Your task to perform on an android device: make emails show in primary in the gmail app Image 0: 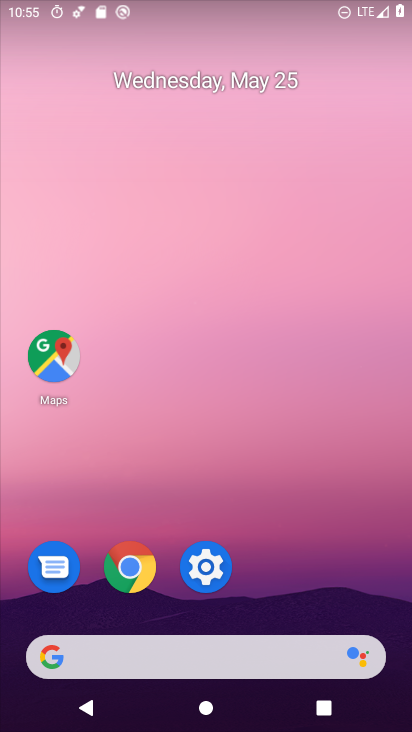
Step 0: drag from (269, 688) to (208, 42)
Your task to perform on an android device: make emails show in primary in the gmail app Image 1: 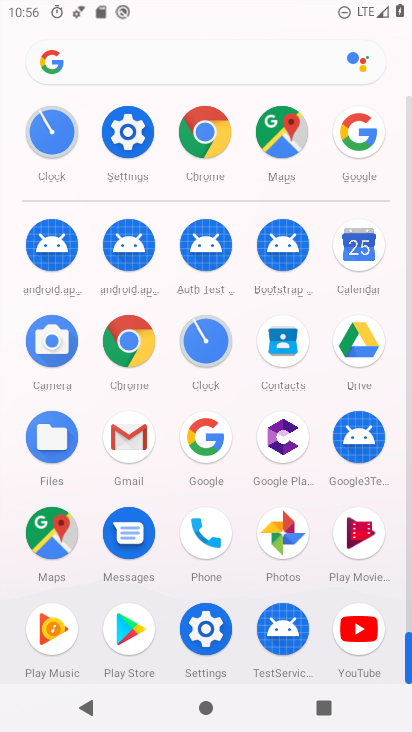
Step 1: click (122, 431)
Your task to perform on an android device: make emails show in primary in the gmail app Image 2: 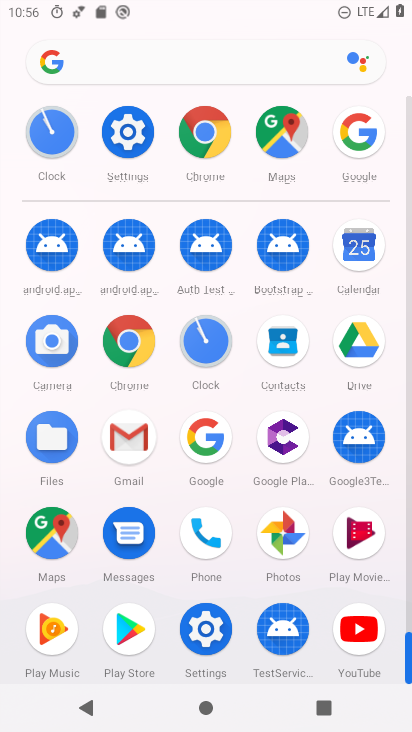
Step 2: click (122, 431)
Your task to perform on an android device: make emails show in primary in the gmail app Image 3: 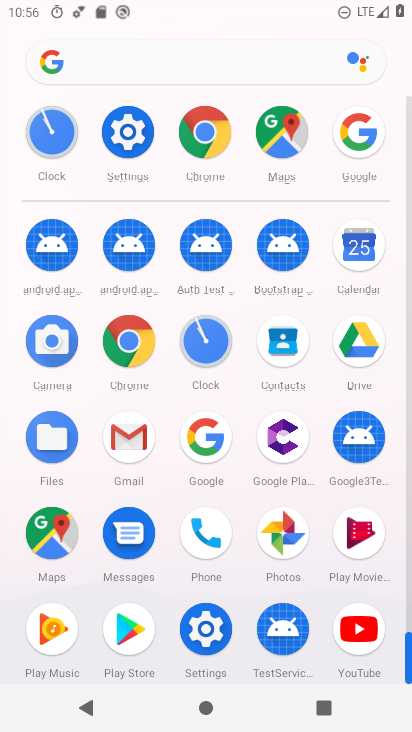
Step 3: click (122, 431)
Your task to perform on an android device: make emails show in primary in the gmail app Image 4: 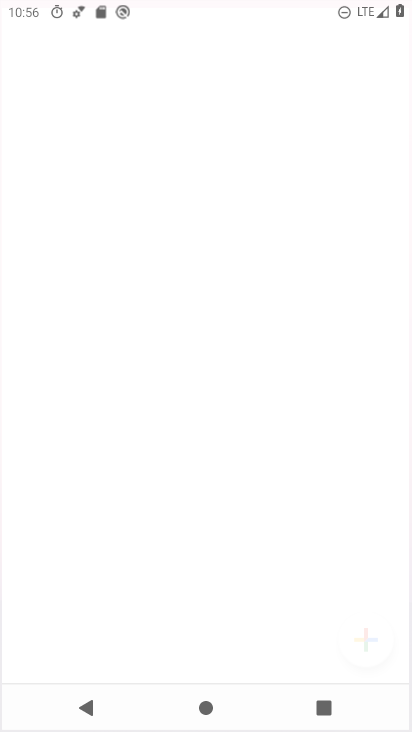
Step 4: click (122, 431)
Your task to perform on an android device: make emails show in primary in the gmail app Image 5: 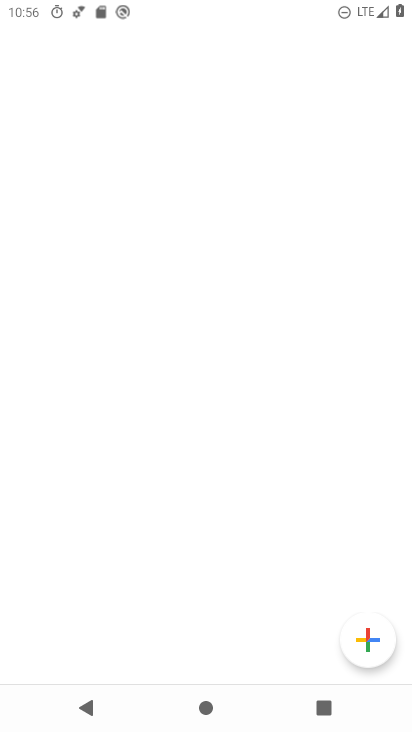
Step 5: click (122, 431)
Your task to perform on an android device: make emails show in primary in the gmail app Image 6: 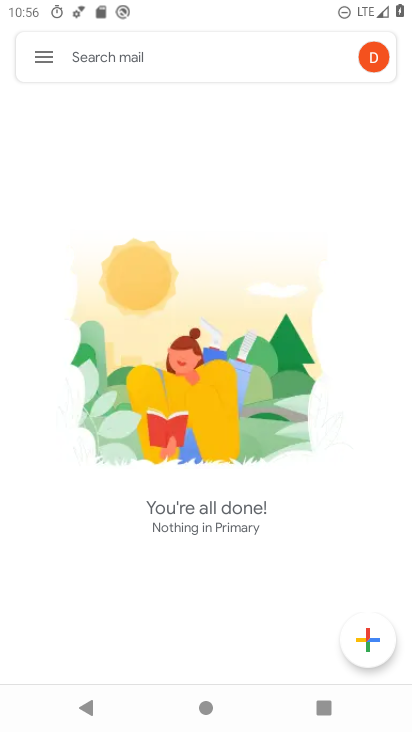
Step 6: press back button
Your task to perform on an android device: make emails show in primary in the gmail app Image 7: 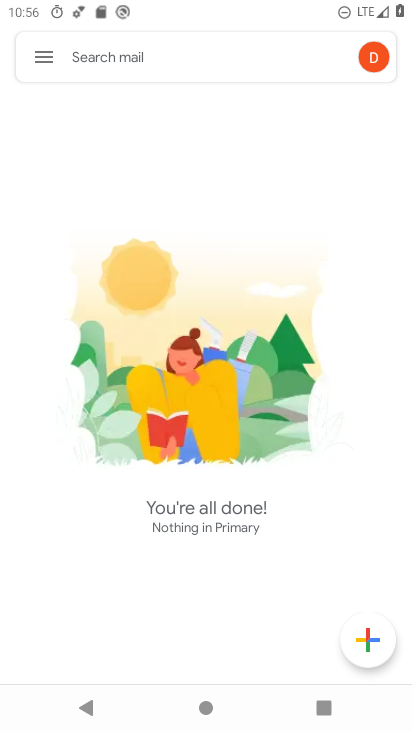
Step 7: press back button
Your task to perform on an android device: make emails show in primary in the gmail app Image 8: 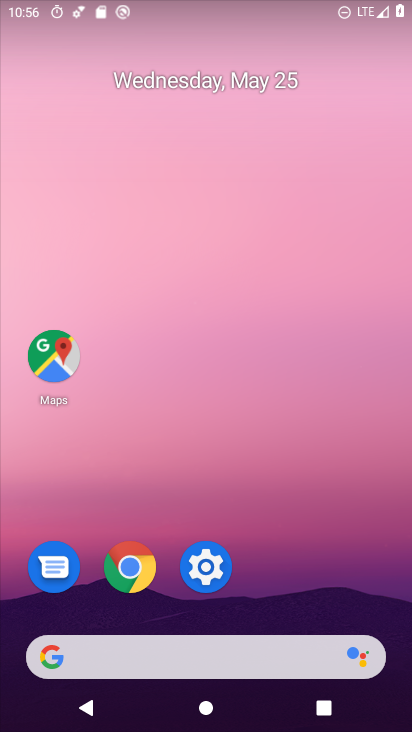
Step 8: drag from (269, 675) to (159, 66)
Your task to perform on an android device: make emails show in primary in the gmail app Image 9: 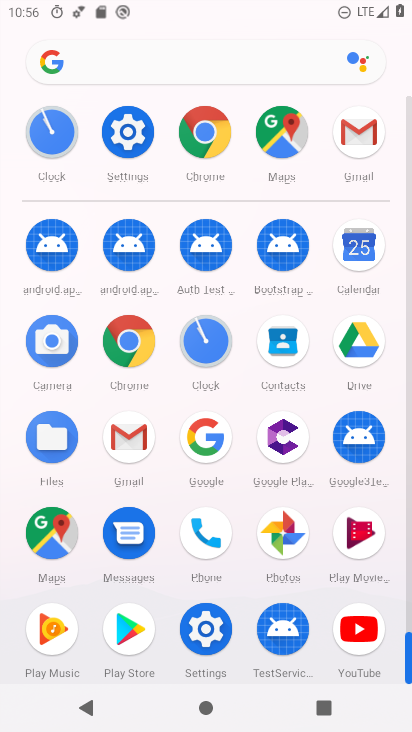
Step 9: click (124, 438)
Your task to perform on an android device: make emails show in primary in the gmail app Image 10: 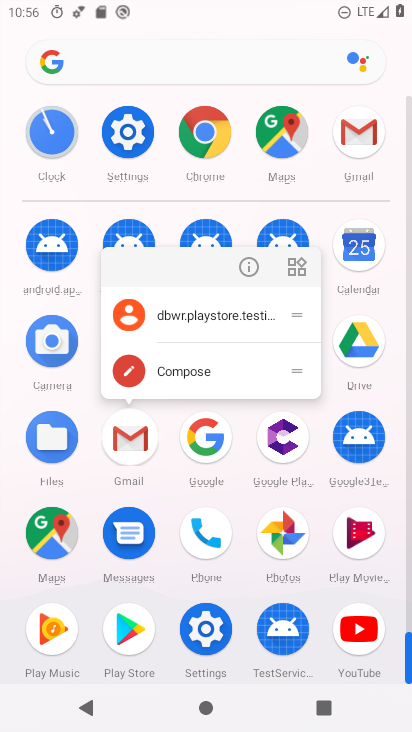
Step 10: click (124, 437)
Your task to perform on an android device: make emails show in primary in the gmail app Image 11: 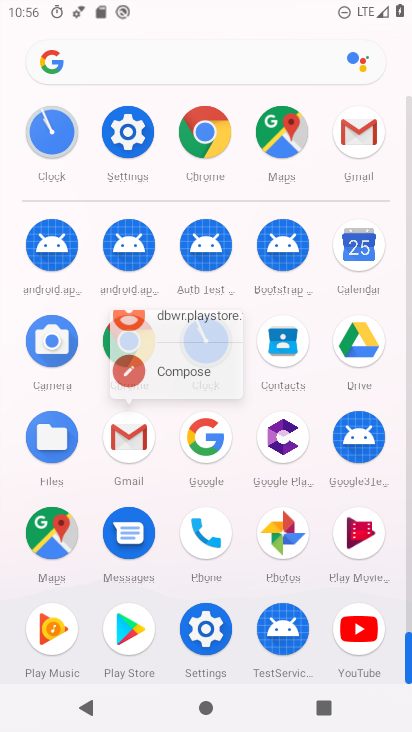
Step 11: click (124, 437)
Your task to perform on an android device: make emails show in primary in the gmail app Image 12: 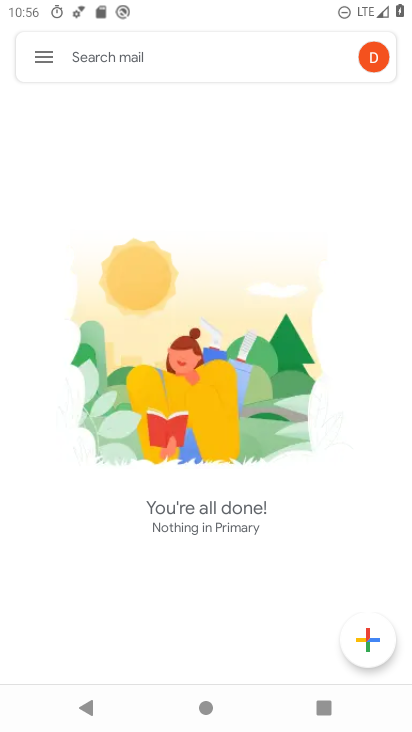
Step 12: click (46, 52)
Your task to perform on an android device: make emails show in primary in the gmail app Image 13: 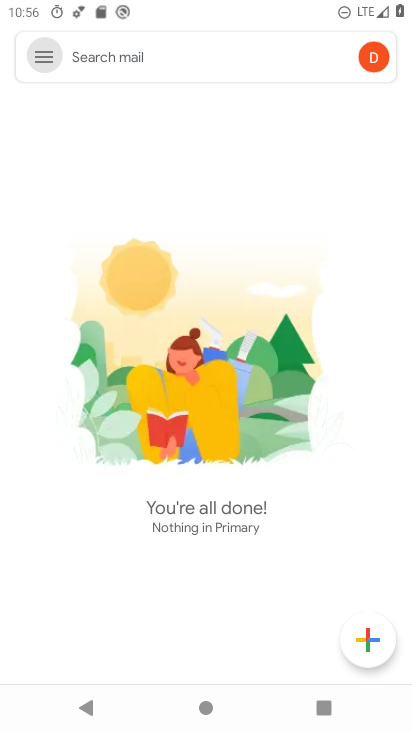
Step 13: click (46, 52)
Your task to perform on an android device: make emails show in primary in the gmail app Image 14: 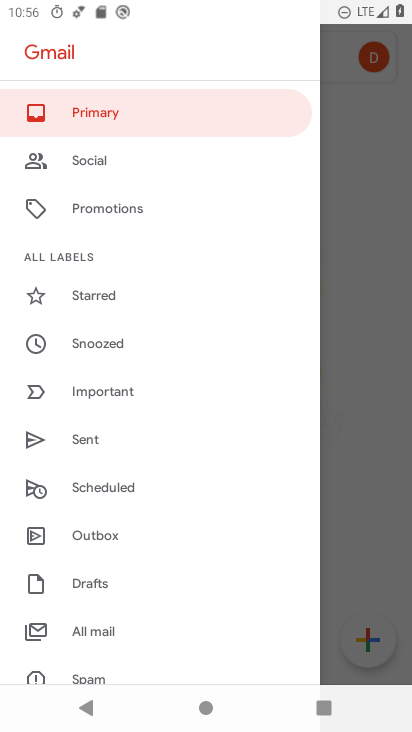
Step 14: drag from (102, 518) to (89, 180)
Your task to perform on an android device: make emails show in primary in the gmail app Image 15: 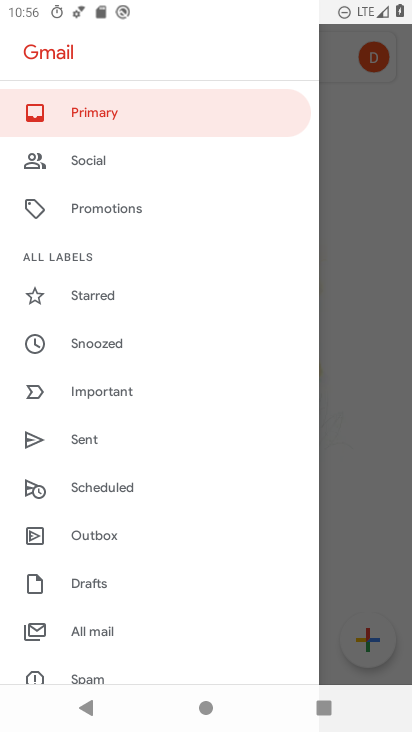
Step 15: drag from (82, 541) to (63, 244)
Your task to perform on an android device: make emails show in primary in the gmail app Image 16: 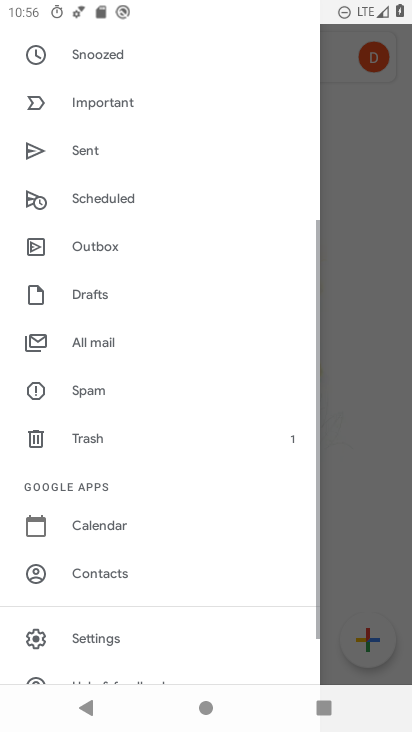
Step 16: drag from (59, 633) to (95, 394)
Your task to perform on an android device: make emails show in primary in the gmail app Image 17: 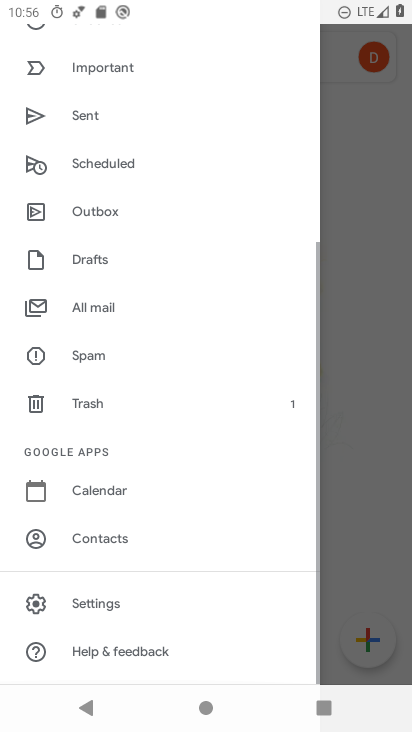
Step 17: drag from (51, 502) to (32, 421)
Your task to perform on an android device: make emails show in primary in the gmail app Image 18: 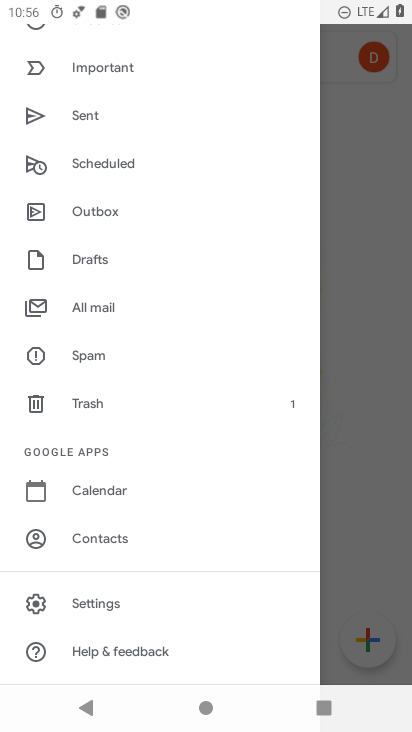
Step 18: click (80, 604)
Your task to perform on an android device: make emails show in primary in the gmail app Image 19: 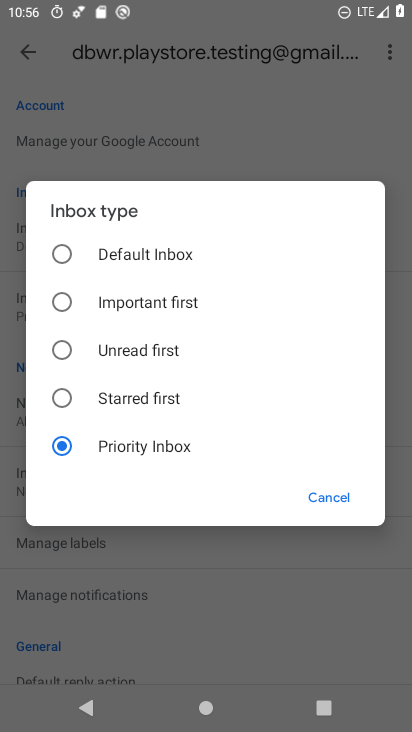
Step 19: click (328, 492)
Your task to perform on an android device: make emails show in primary in the gmail app Image 20: 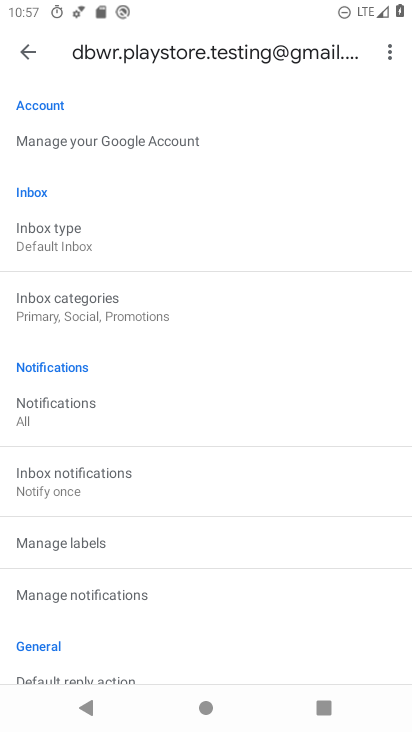
Step 20: click (63, 307)
Your task to perform on an android device: make emails show in primary in the gmail app Image 21: 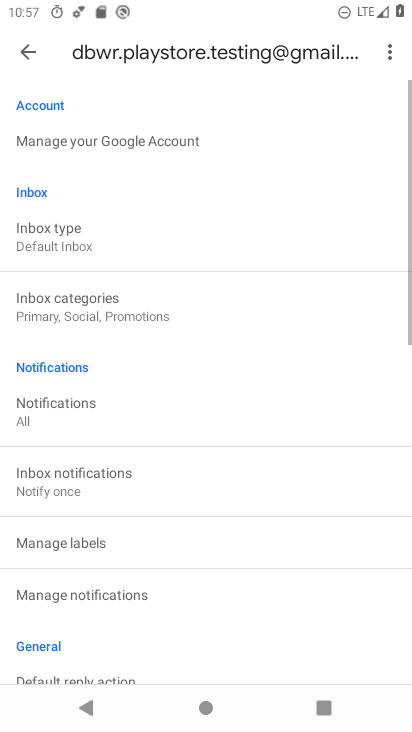
Step 21: click (63, 307)
Your task to perform on an android device: make emails show in primary in the gmail app Image 22: 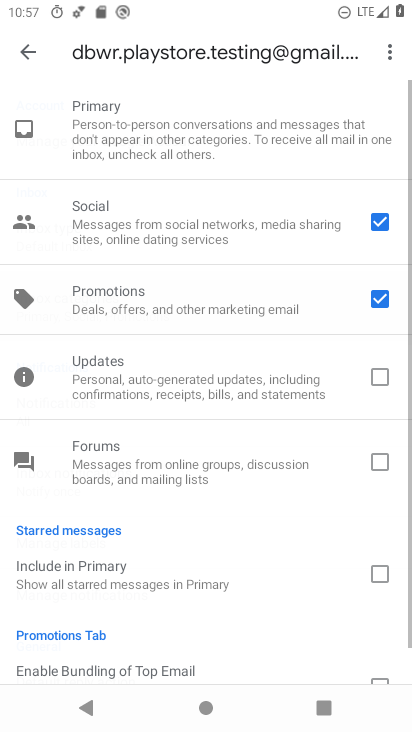
Step 22: click (63, 307)
Your task to perform on an android device: make emails show in primary in the gmail app Image 23: 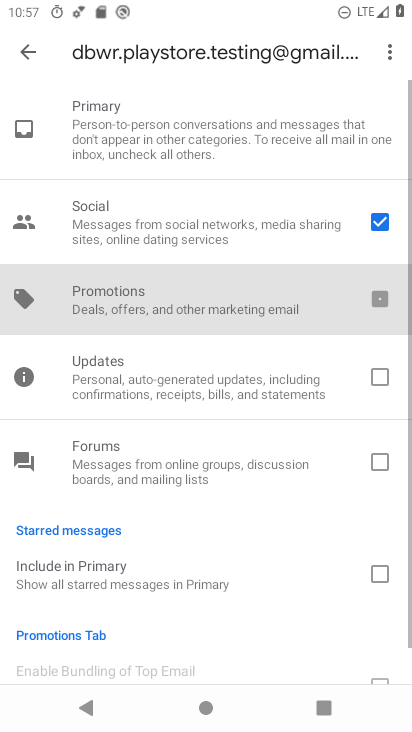
Step 23: click (63, 307)
Your task to perform on an android device: make emails show in primary in the gmail app Image 24: 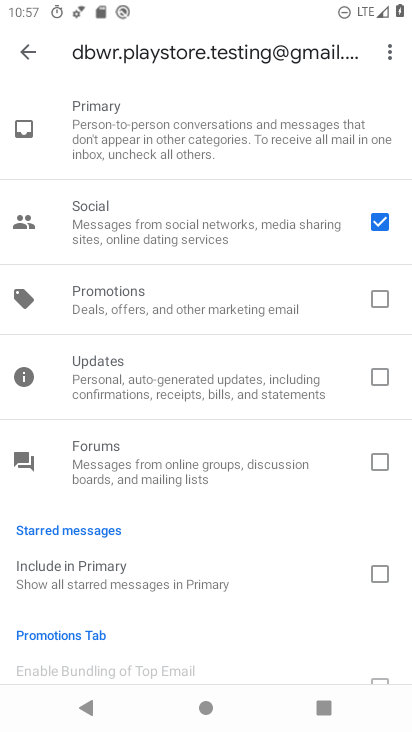
Step 24: click (156, 123)
Your task to perform on an android device: make emails show in primary in the gmail app Image 25: 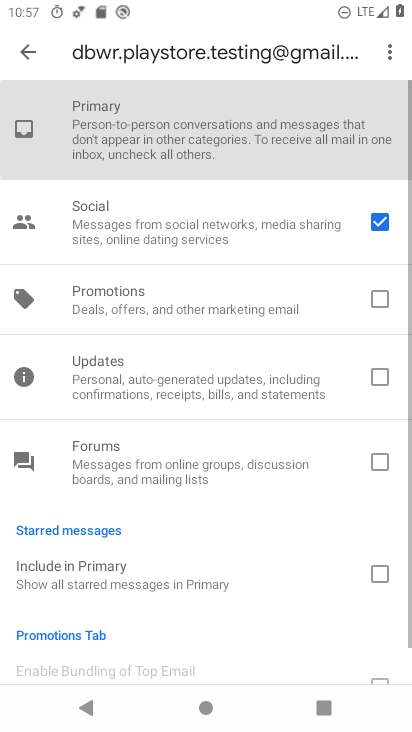
Step 25: click (155, 124)
Your task to perform on an android device: make emails show in primary in the gmail app Image 26: 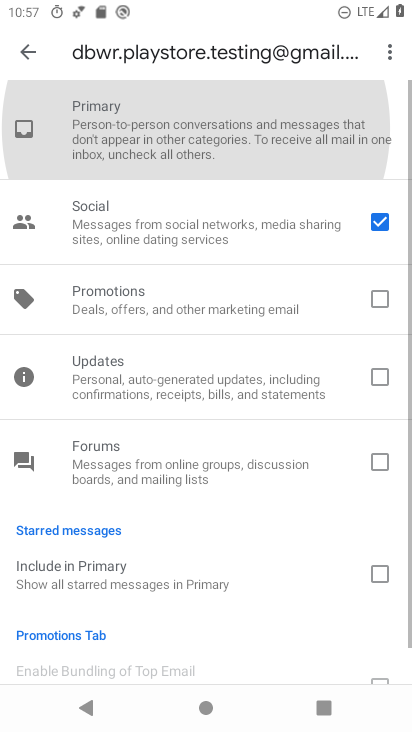
Step 26: click (155, 124)
Your task to perform on an android device: make emails show in primary in the gmail app Image 27: 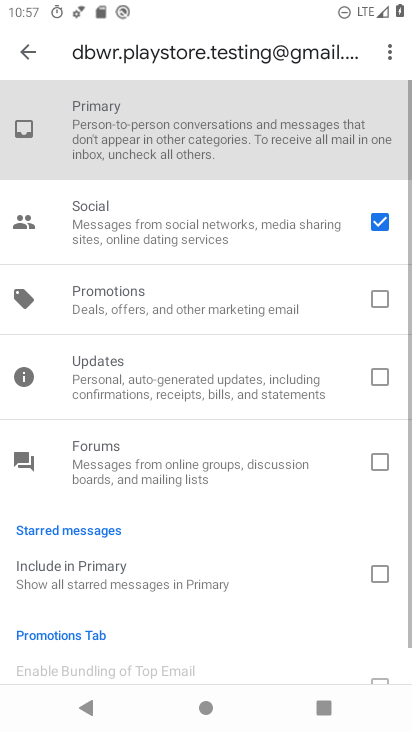
Step 27: click (154, 122)
Your task to perform on an android device: make emails show in primary in the gmail app Image 28: 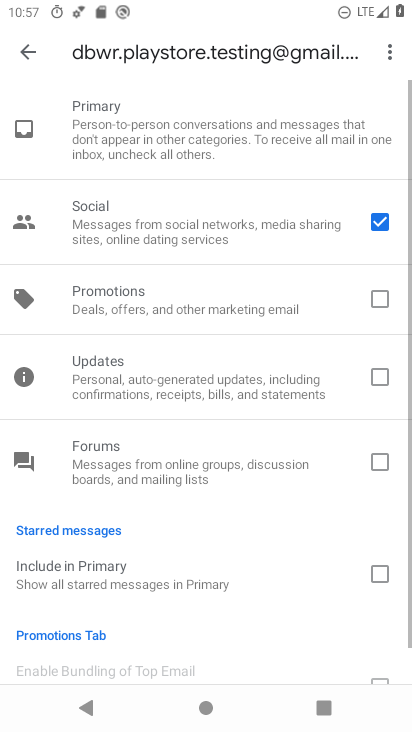
Step 28: task complete